Your task to perform on an android device: Clear the cart on ebay.com. Image 0: 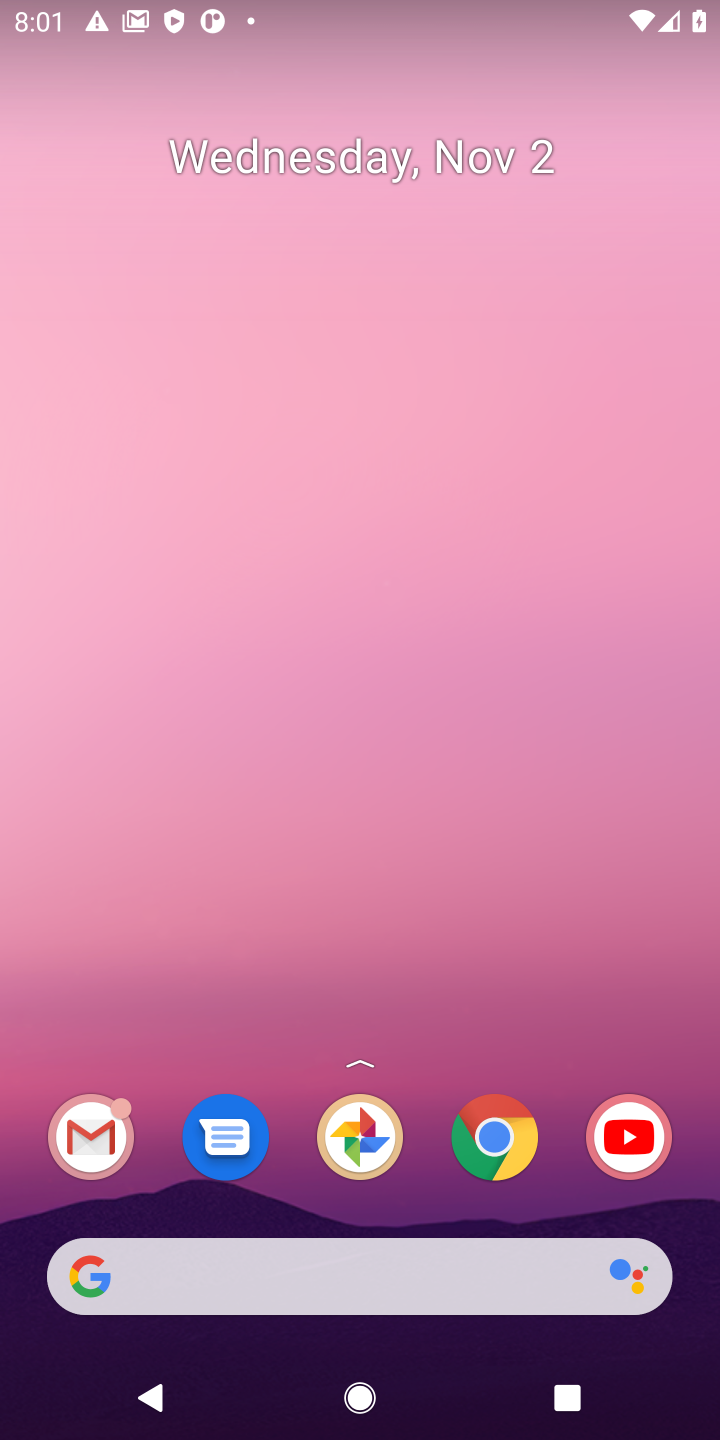
Step 0: click (485, 1133)
Your task to perform on an android device: Clear the cart on ebay.com. Image 1: 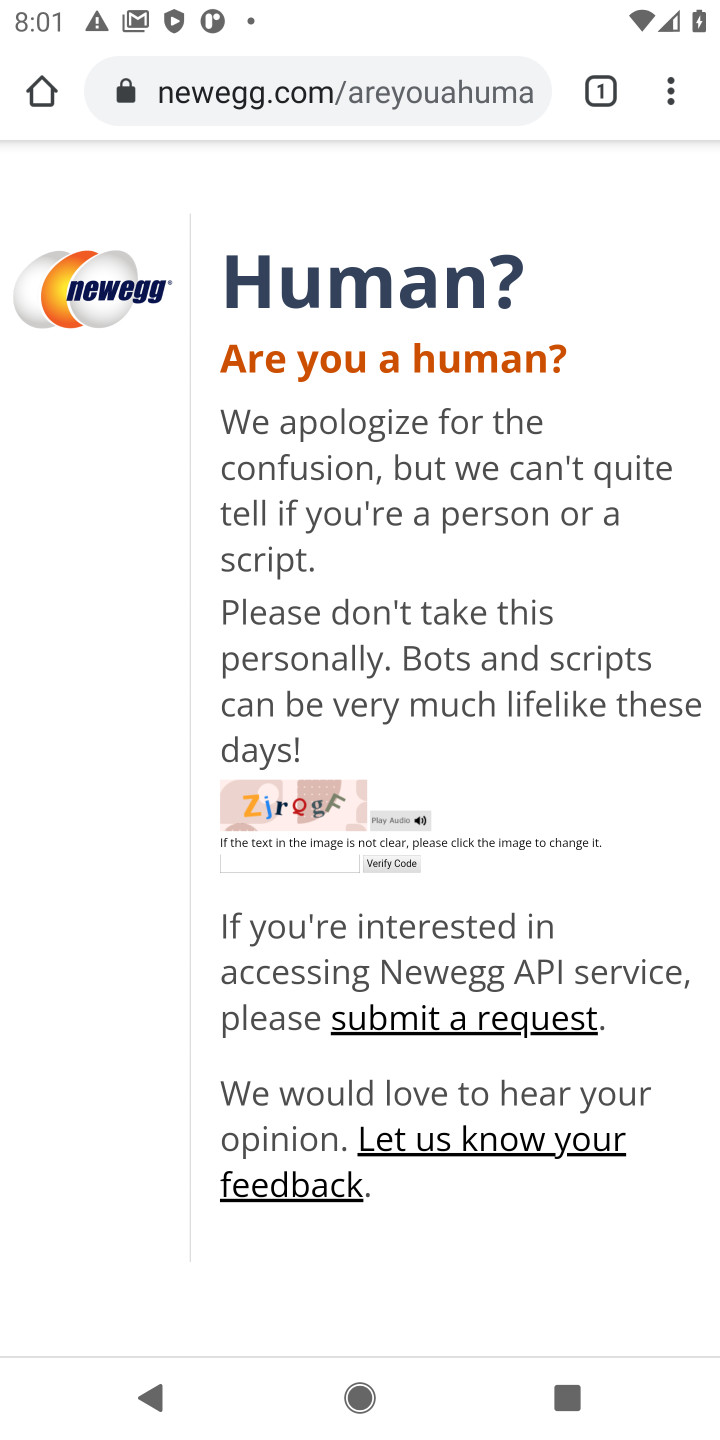
Step 1: click (377, 62)
Your task to perform on an android device: Clear the cart on ebay.com. Image 2: 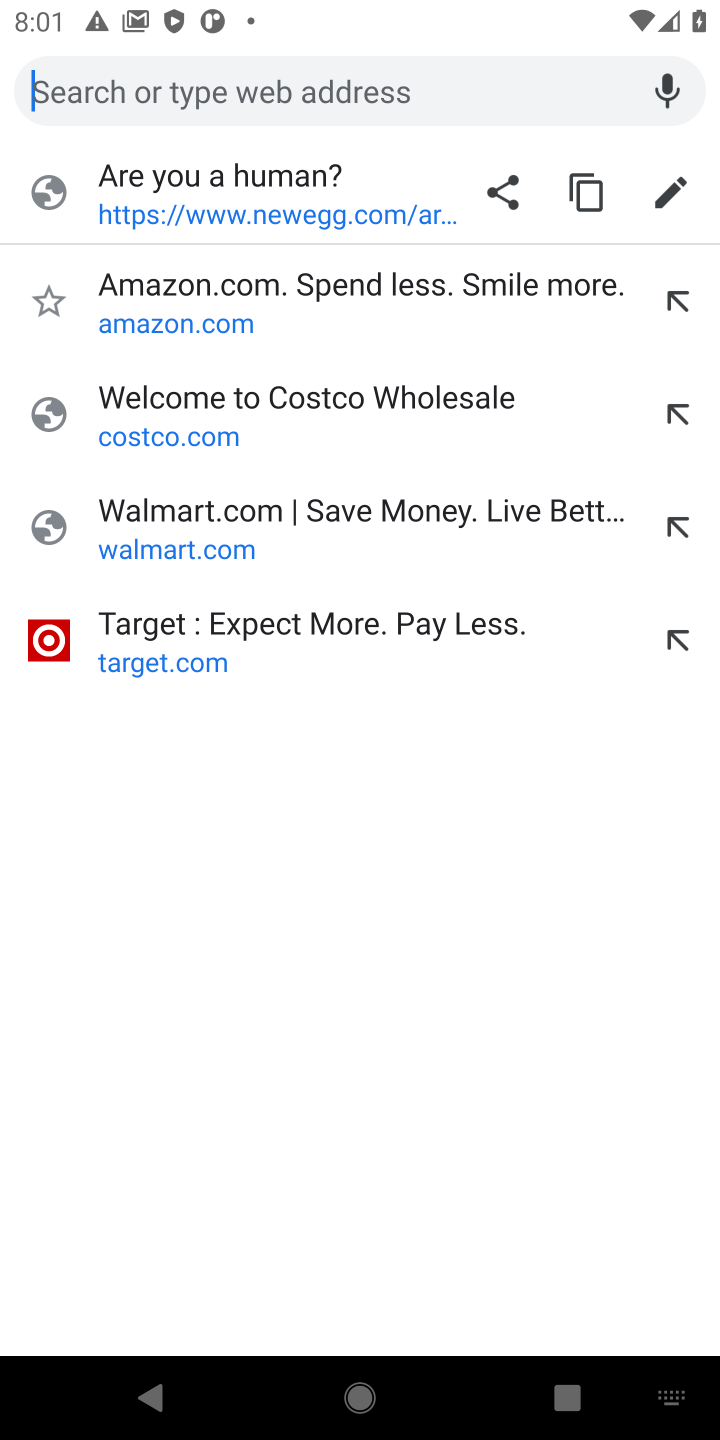
Step 2: type "ebay.com"
Your task to perform on an android device: Clear the cart on ebay.com. Image 3: 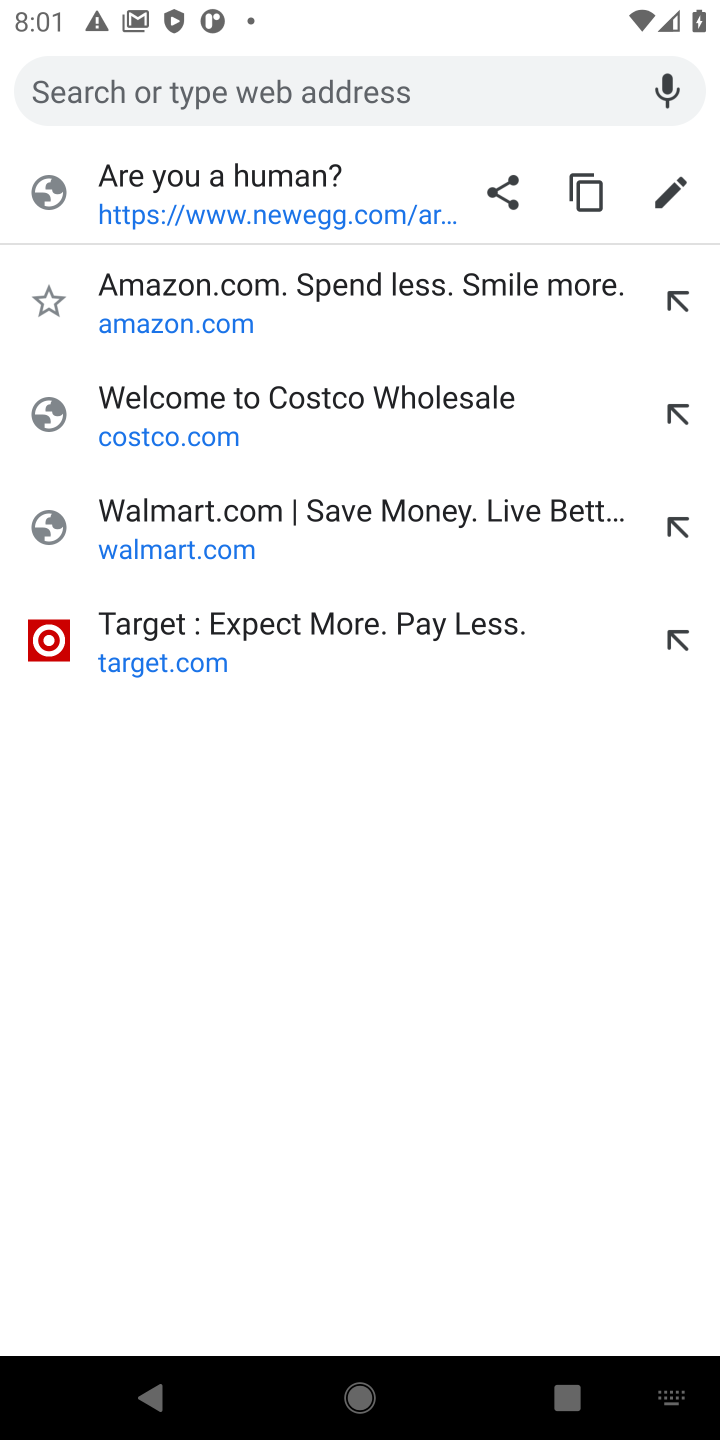
Step 3: click (166, 294)
Your task to perform on an android device: Clear the cart on ebay.com. Image 4: 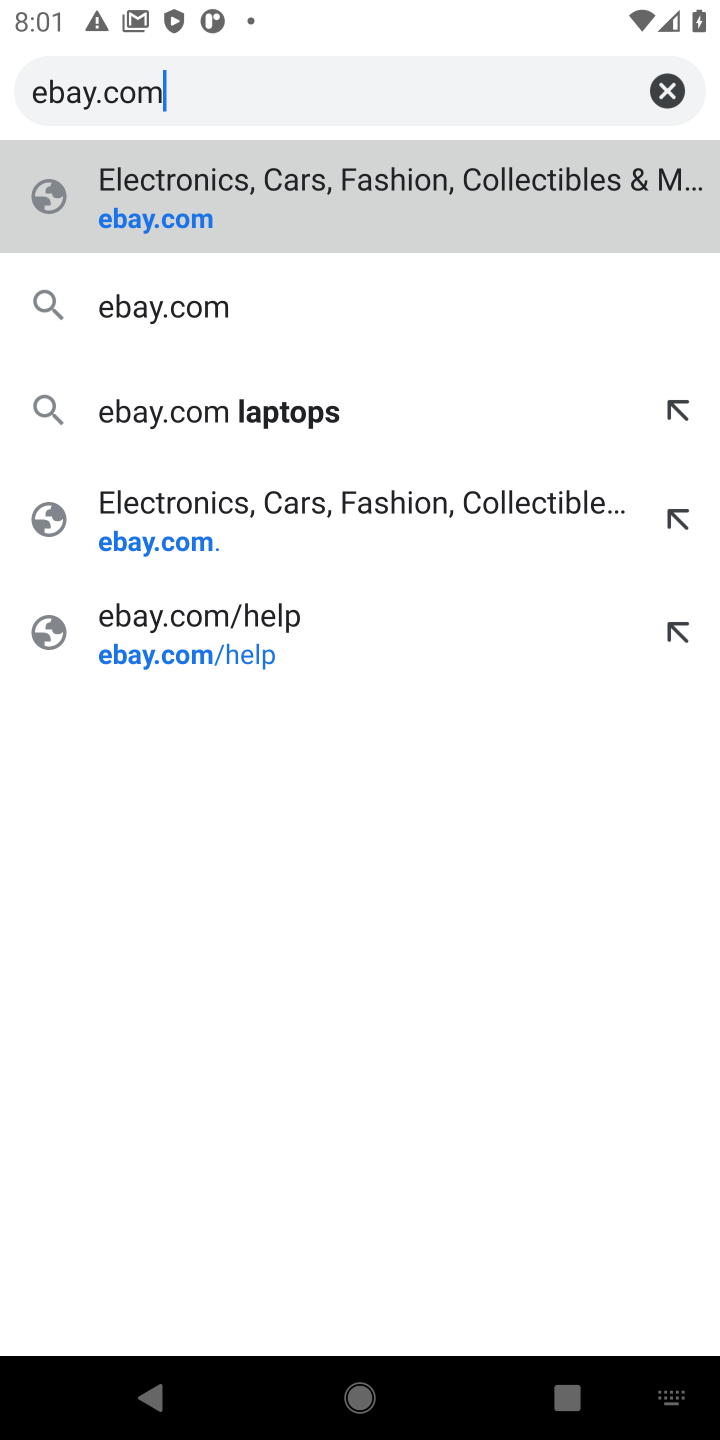
Step 4: click (173, 175)
Your task to perform on an android device: Clear the cart on ebay.com. Image 5: 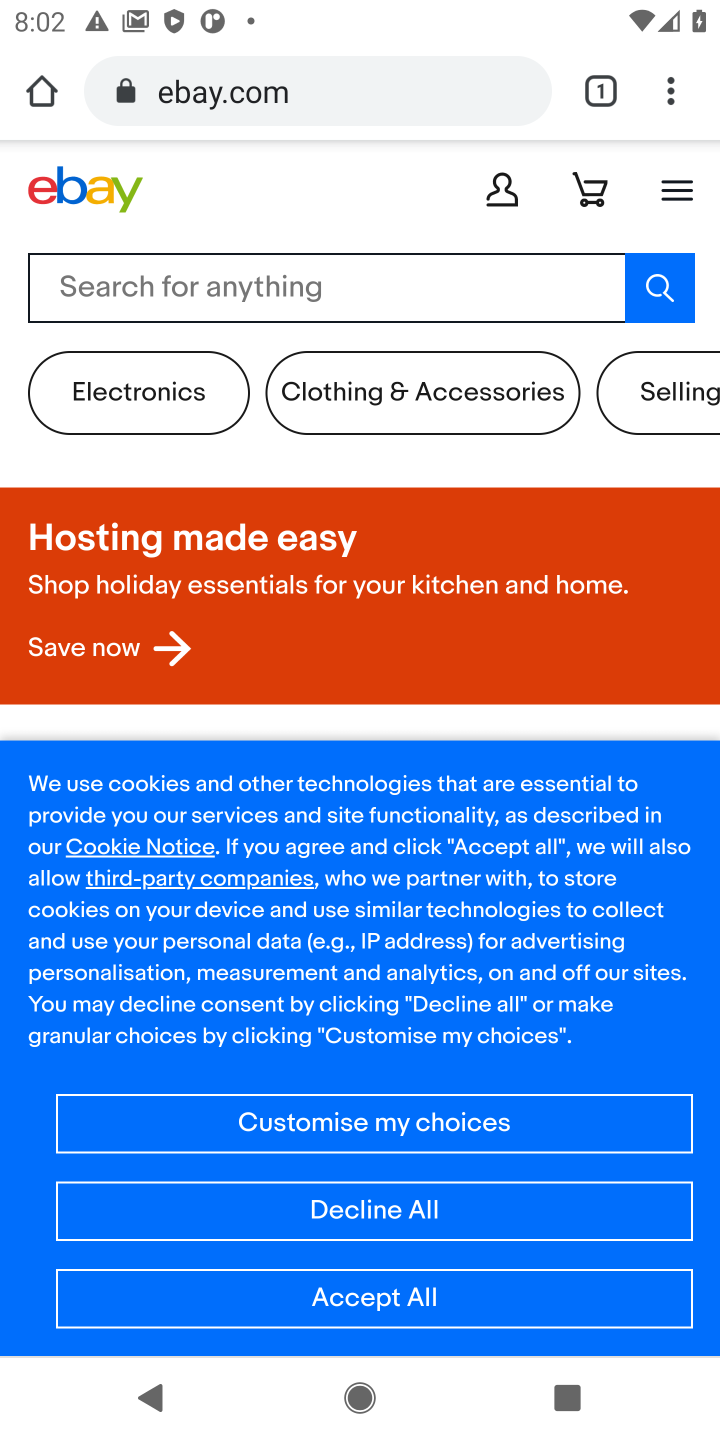
Step 5: click (583, 186)
Your task to perform on an android device: Clear the cart on ebay.com. Image 6: 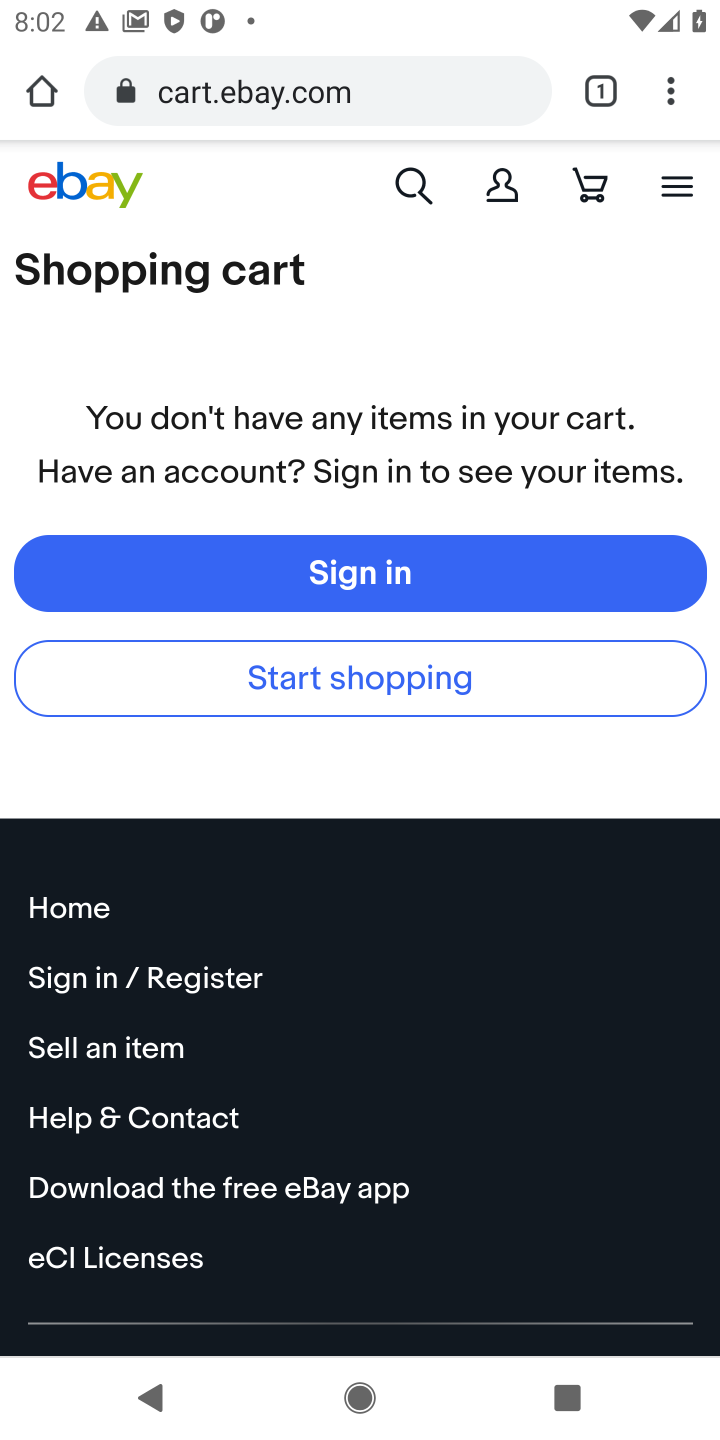
Step 6: task complete